Your task to perform on an android device: Open Amazon Image 0: 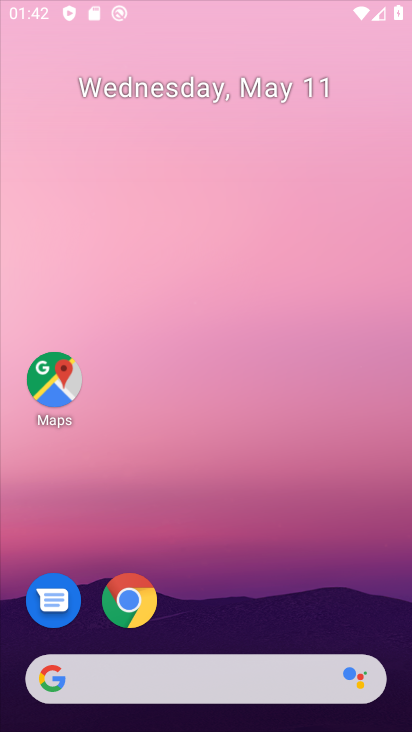
Step 0: drag from (220, 619) to (242, 309)
Your task to perform on an android device: Open Amazon Image 1: 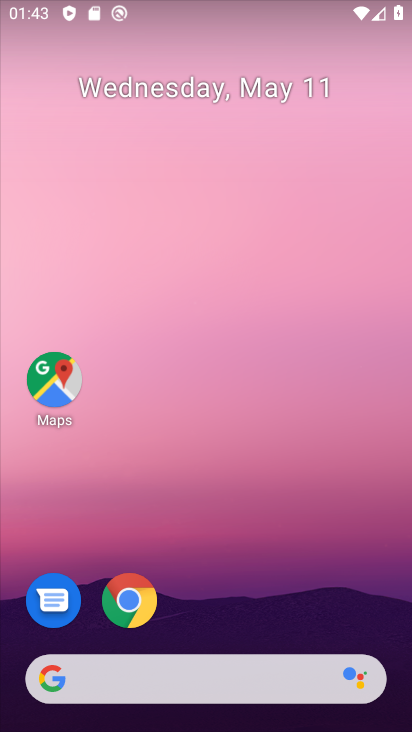
Step 1: drag from (247, 593) to (231, 269)
Your task to perform on an android device: Open Amazon Image 2: 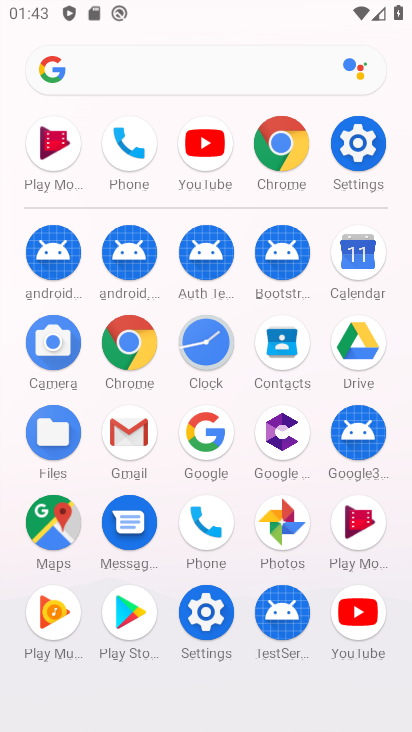
Step 2: click (282, 142)
Your task to perform on an android device: Open Amazon Image 3: 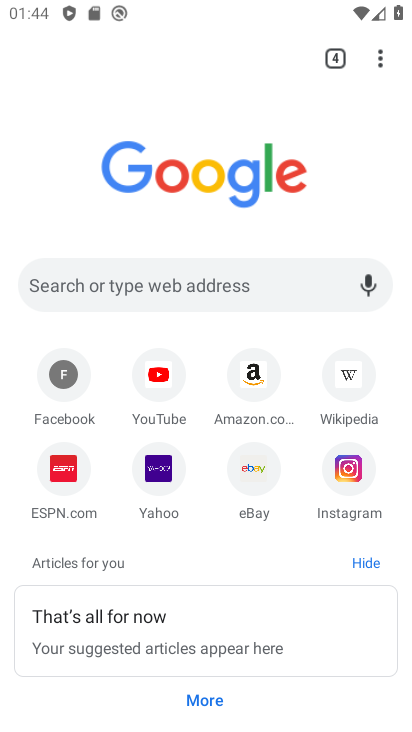
Step 3: click (258, 380)
Your task to perform on an android device: Open Amazon Image 4: 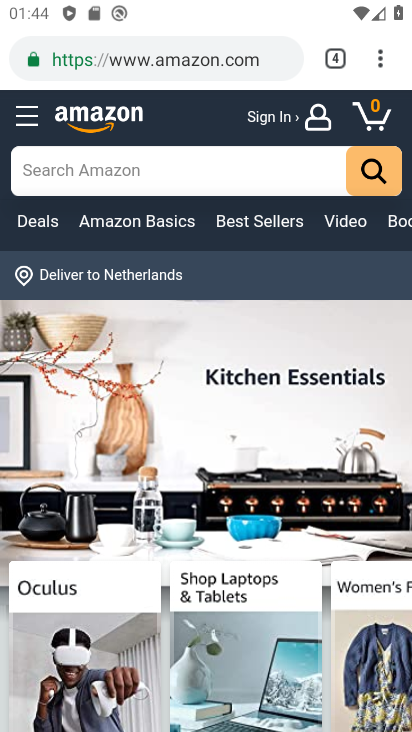
Step 4: task complete